Your task to perform on an android device: open a bookmark in the chrome app Image 0: 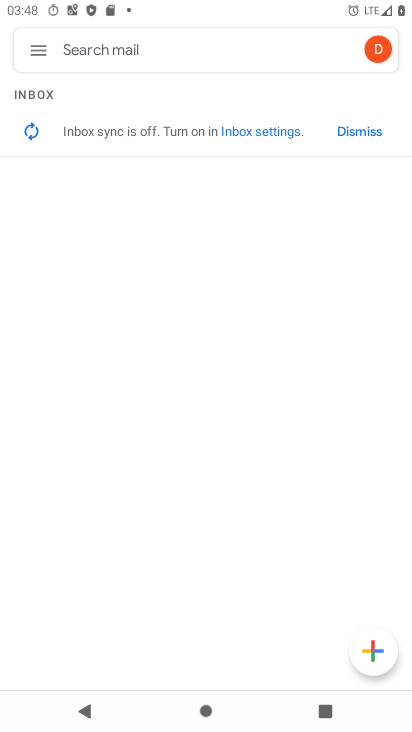
Step 0: press home button
Your task to perform on an android device: open a bookmark in the chrome app Image 1: 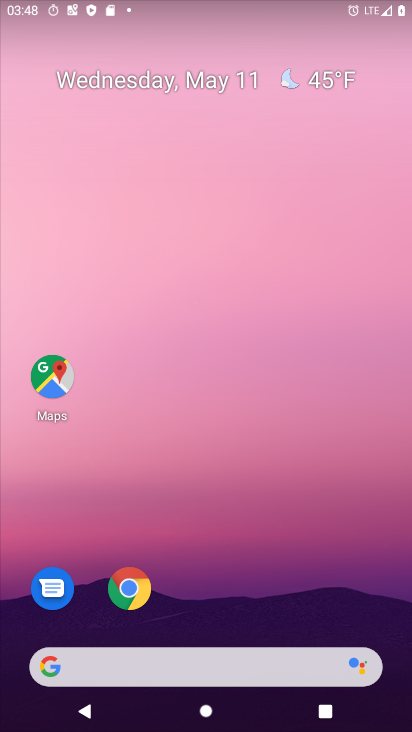
Step 1: click (140, 578)
Your task to perform on an android device: open a bookmark in the chrome app Image 2: 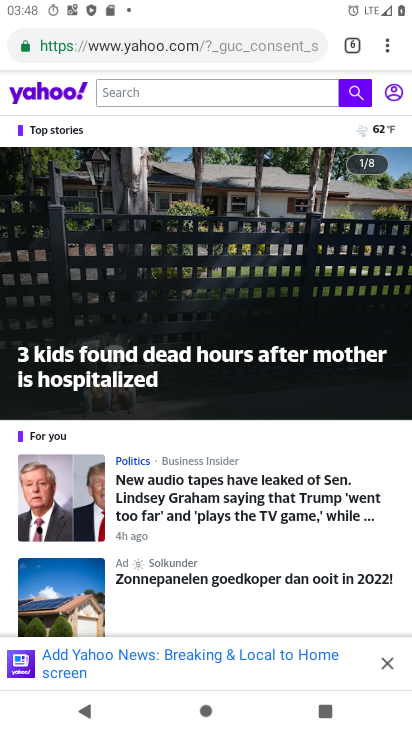
Step 2: drag from (383, 46) to (238, 182)
Your task to perform on an android device: open a bookmark in the chrome app Image 3: 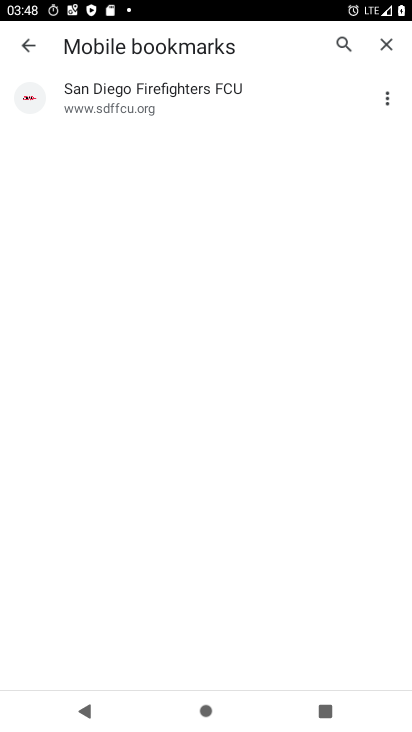
Step 3: click (185, 111)
Your task to perform on an android device: open a bookmark in the chrome app Image 4: 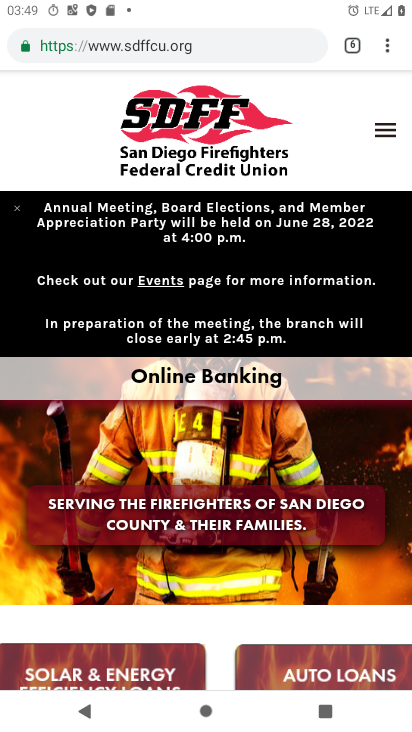
Step 4: task complete